Your task to perform on an android device: What is the news today? Image 0: 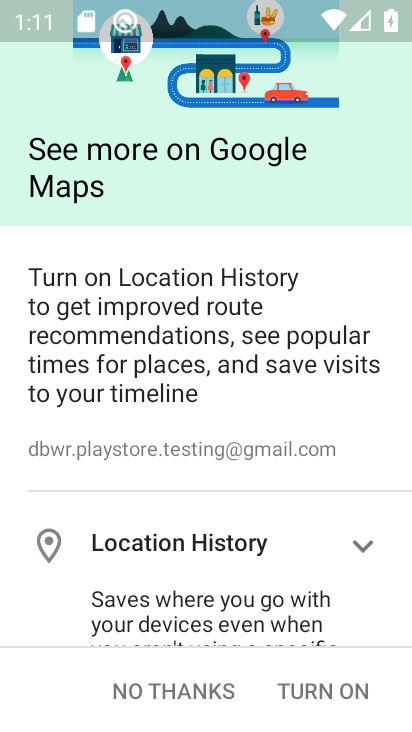
Step 0: press home button
Your task to perform on an android device: What is the news today? Image 1: 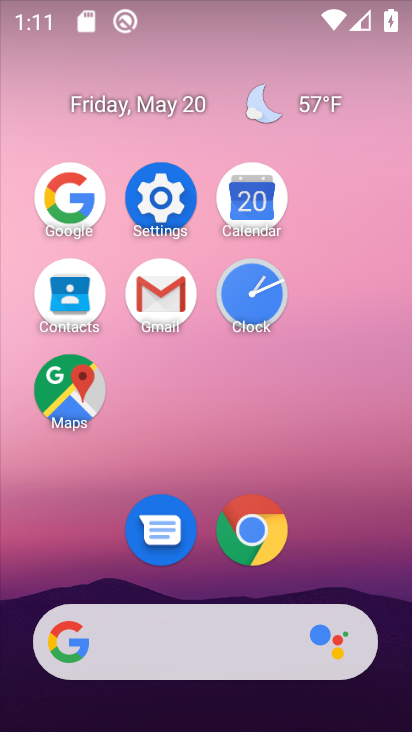
Step 1: click (90, 214)
Your task to perform on an android device: What is the news today? Image 2: 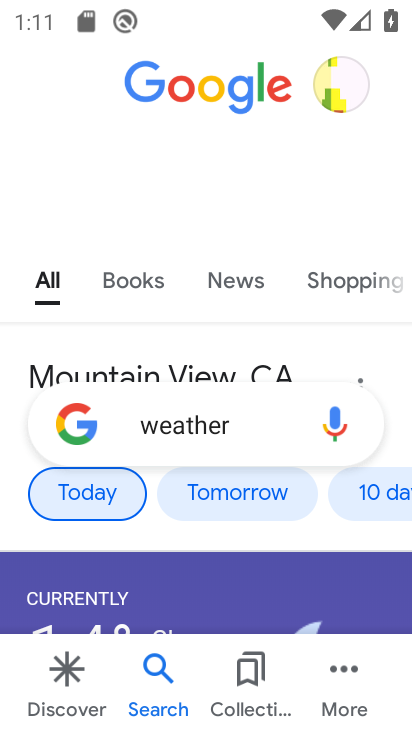
Step 2: click (273, 428)
Your task to perform on an android device: What is the news today? Image 3: 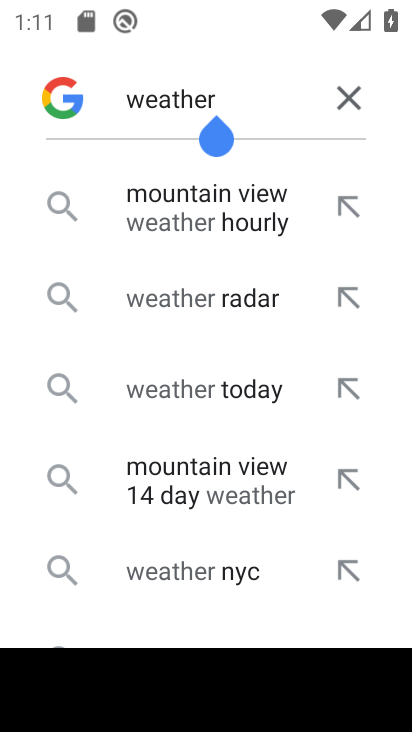
Step 3: click (345, 108)
Your task to perform on an android device: What is the news today? Image 4: 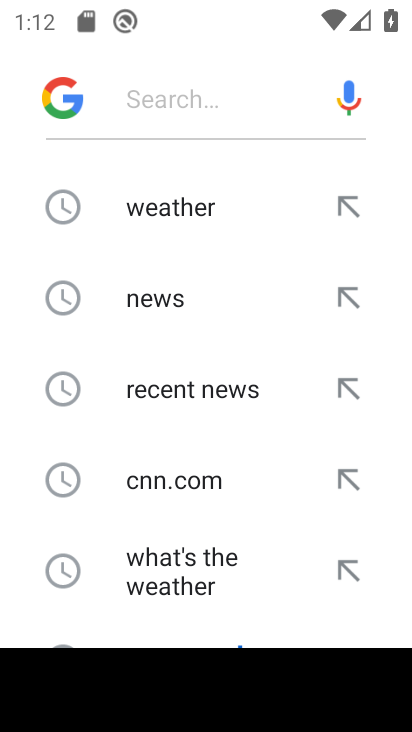
Step 4: click (199, 279)
Your task to perform on an android device: What is the news today? Image 5: 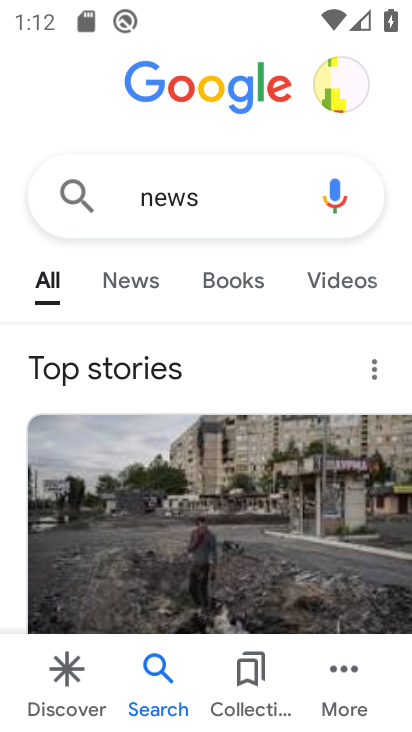
Step 5: task complete